Your task to perform on an android device: Go to eBay Image 0: 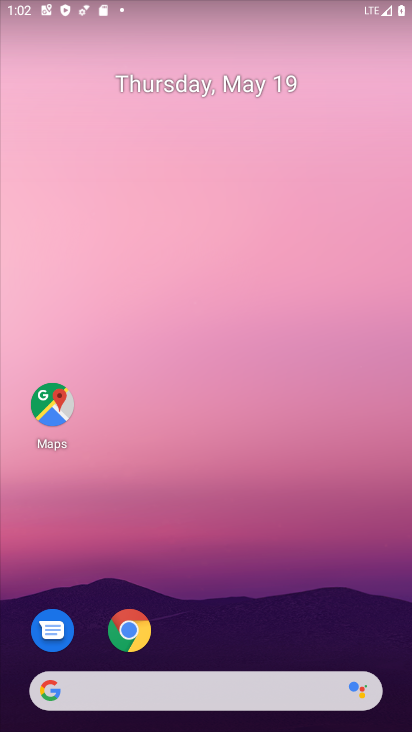
Step 0: click (140, 641)
Your task to perform on an android device: Go to eBay Image 1: 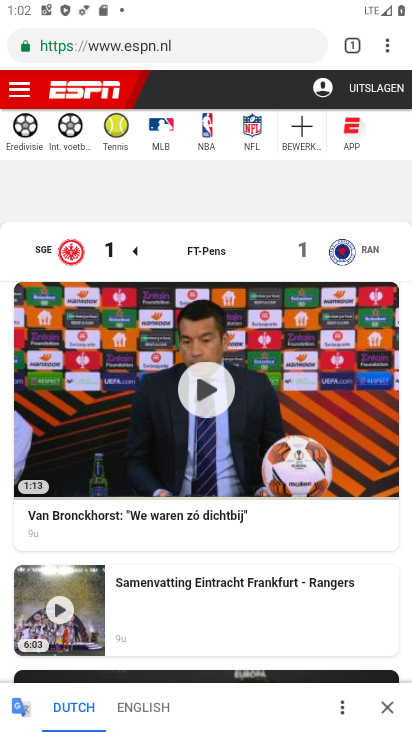
Step 1: click (349, 39)
Your task to perform on an android device: Go to eBay Image 2: 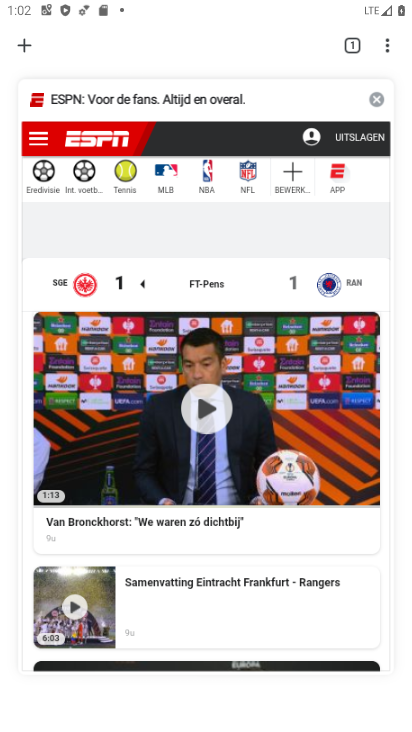
Step 2: click (24, 38)
Your task to perform on an android device: Go to eBay Image 3: 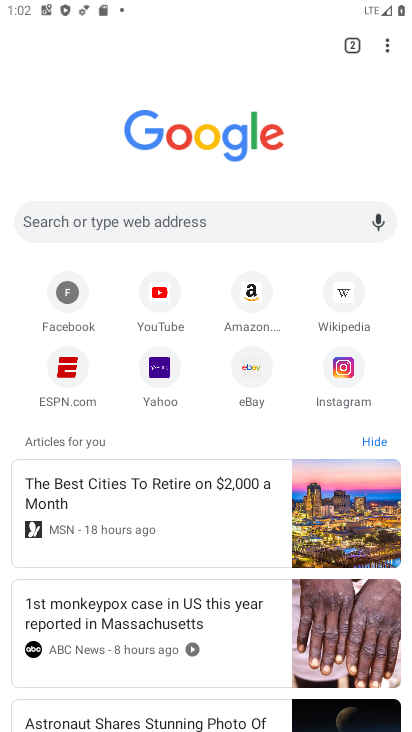
Step 3: click (249, 381)
Your task to perform on an android device: Go to eBay Image 4: 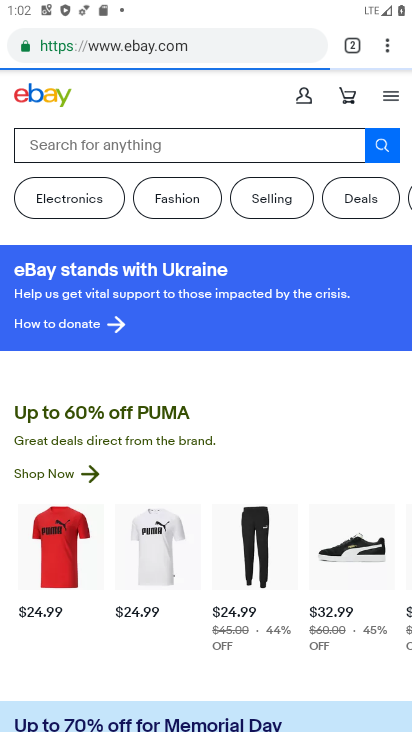
Step 4: task complete